Your task to perform on an android device: install app "Etsy: Buy & Sell Unique Items" Image 0: 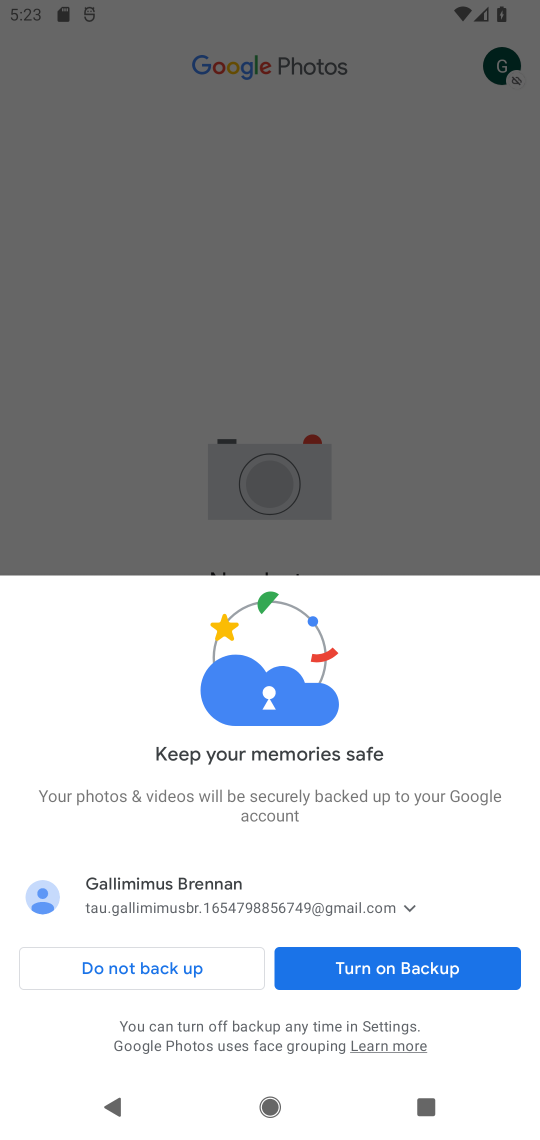
Step 0: press home button
Your task to perform on an android device: install app "Etsy: Buy & Sell Unique Items" Image 1: 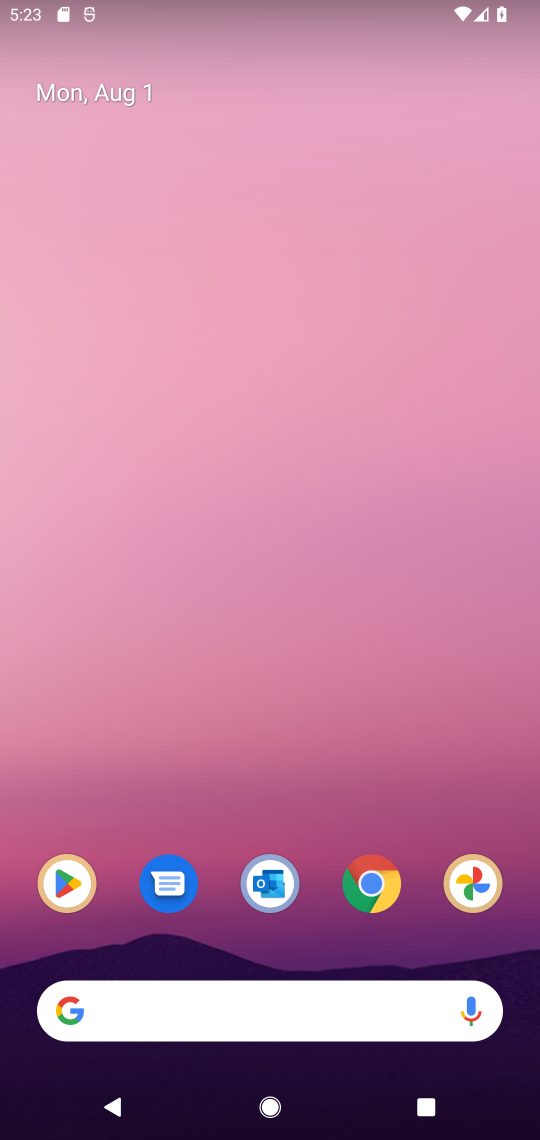
Step 1: drag from (191, 985) to (217, 795)
Your task to perform on an android device: install app "Etsy: Buy & Sell Unique Items" Image 2: 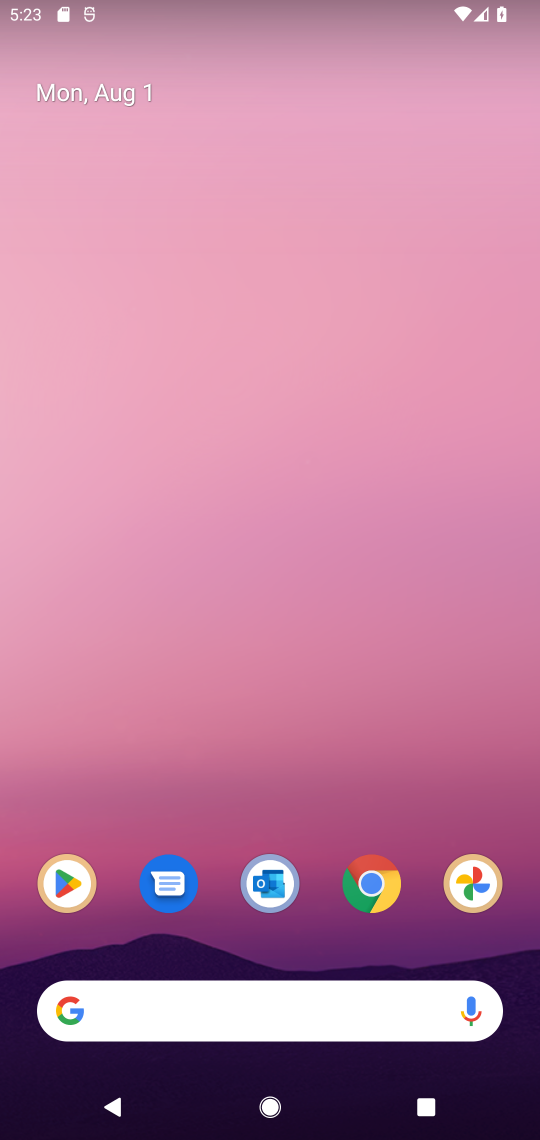
Step 2: drag from (363, 985) to (361, 459)
Your task to perform on an android device: install app "Etsy: Buy & Sell Unique Items" Image 3: 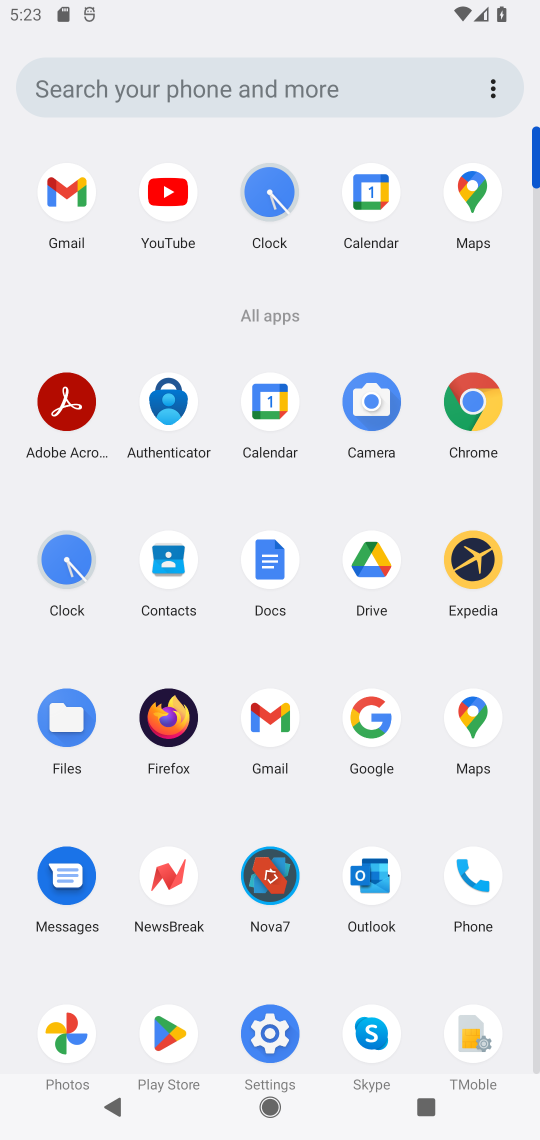
Step 3: click (165, 1028)
Your task to perform on an android device: install app "Etsy: Buy & Sell Unique Items" Image 4: 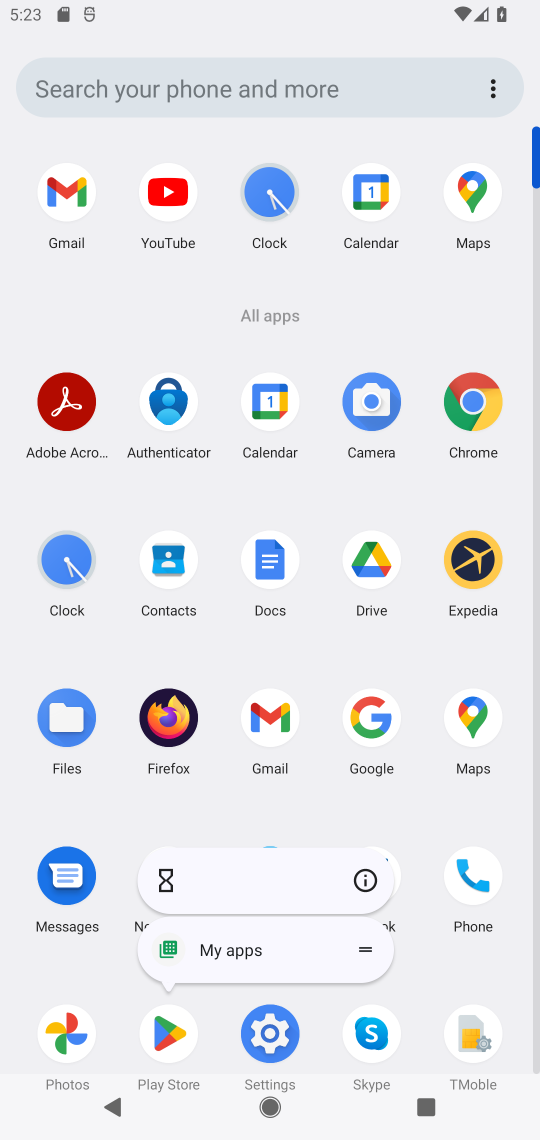
Step 4: click (165, 1028)
Your task to perform on an android device: install app "Etsy: Buy & Sell Unique Items" Image 5: 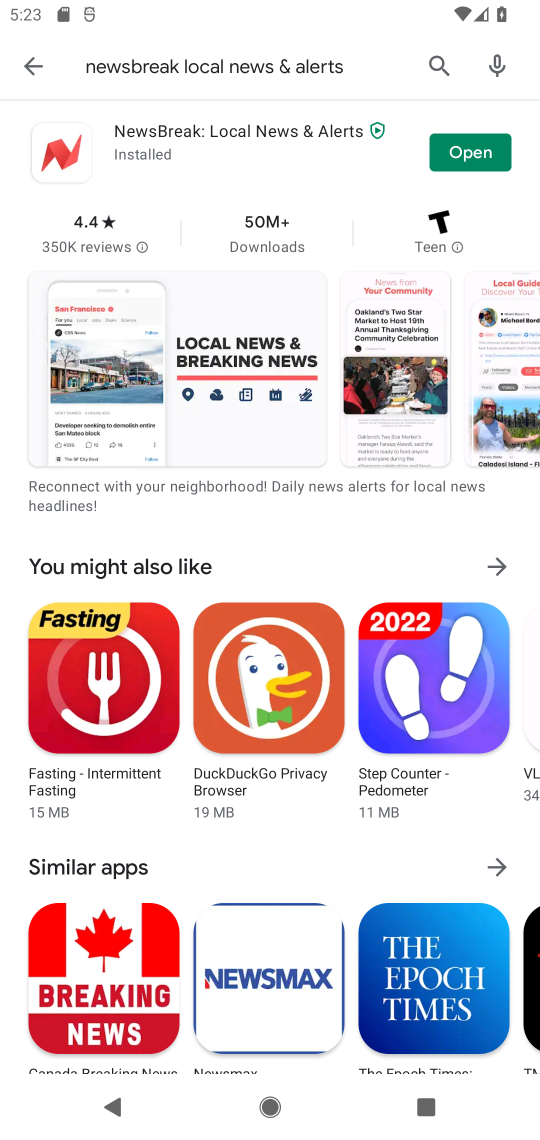
Step 5: click (441, 74)
Your task to perform on an android device: install app "Etsy: Buy & Sell Unique Items" Image 6: 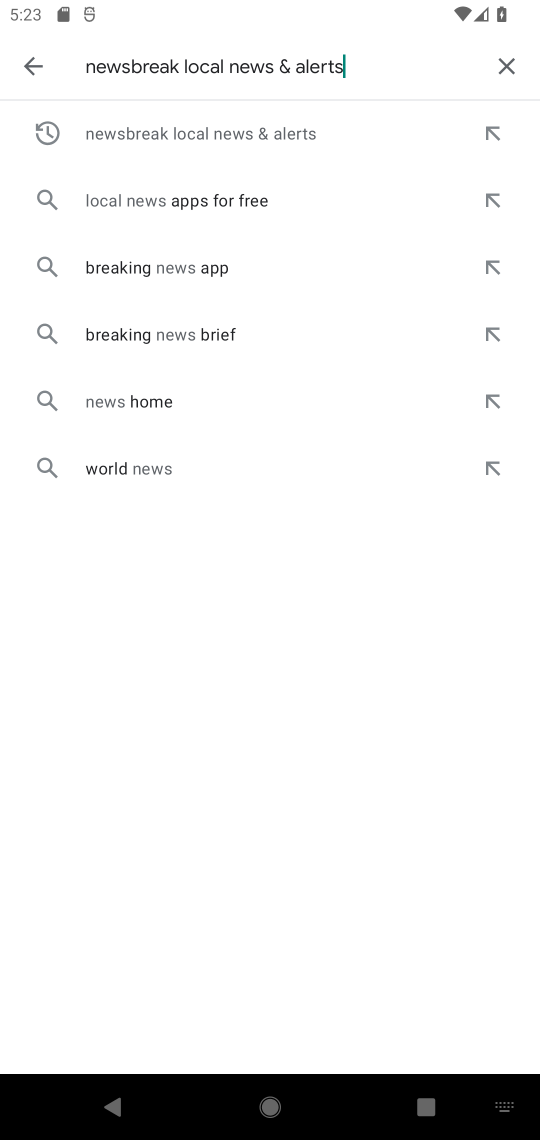
Step 6: type "Etsy: Buy & Sell Unique Items"
Your task to perform on an android device: install app "Etsy: Buy & Sell Unique Items" Image 7: 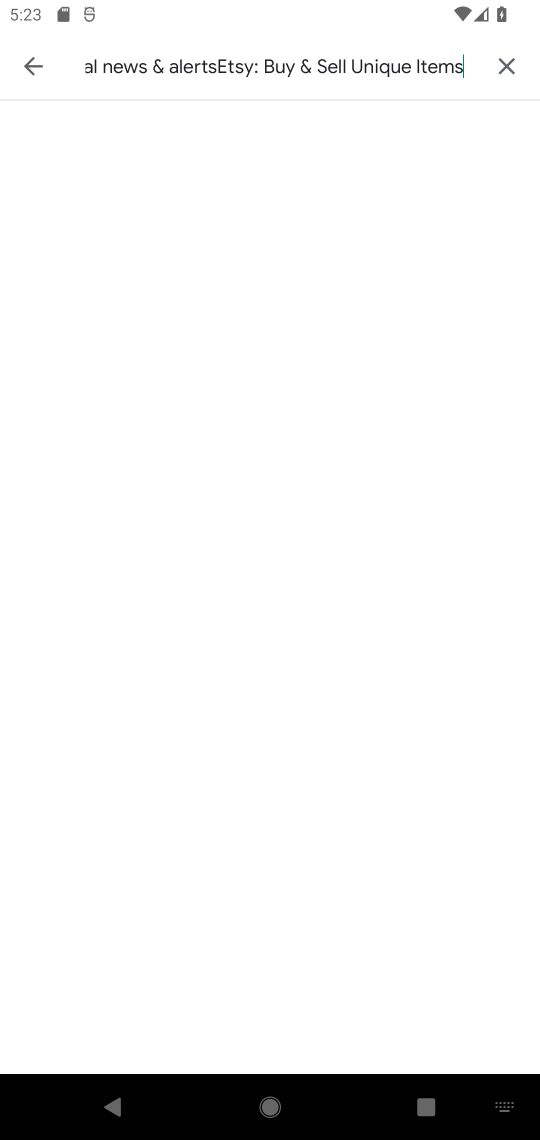
Step 7: click (499, 69)
Your task to perform on an android device: install app "Etsy: Buy & Sell Unique Items" Image 8: 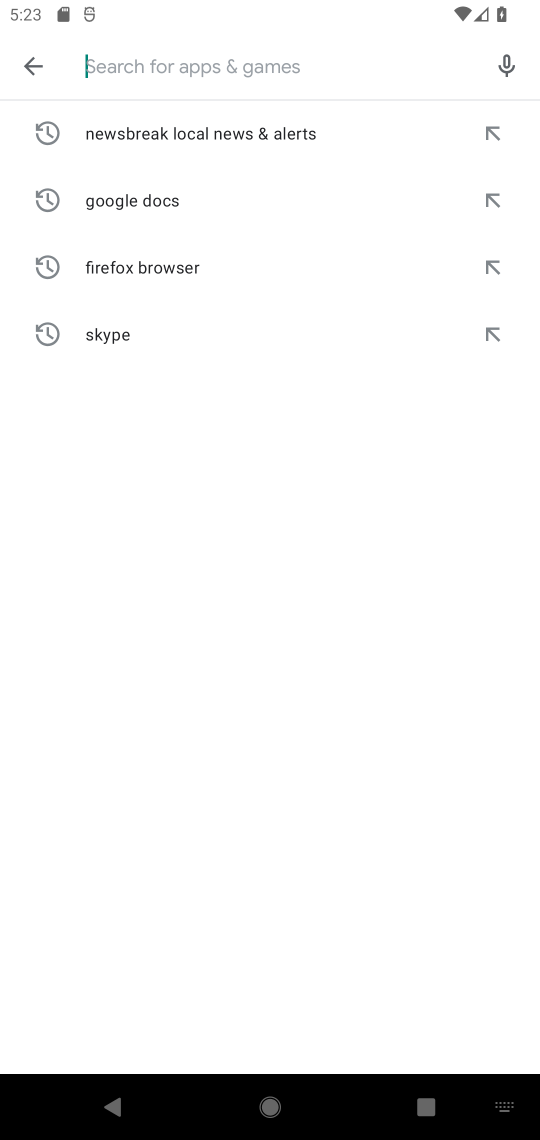
Step 8: type "Etsy: Buy & Sell Unique Items"
Your task to perform on an android device: install app "Etsy: Buy & Sell Unique Items" Image 9: 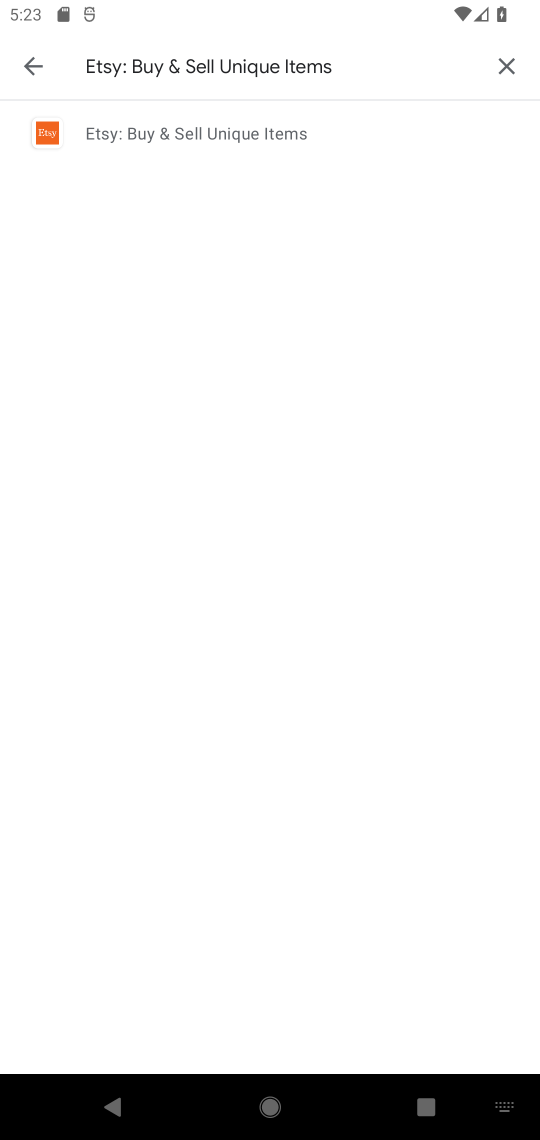
Step 9: click (164, 142)
Your task to perform on an android device: install app "Etsy: Buy & Sell Unique Items" Image 10: 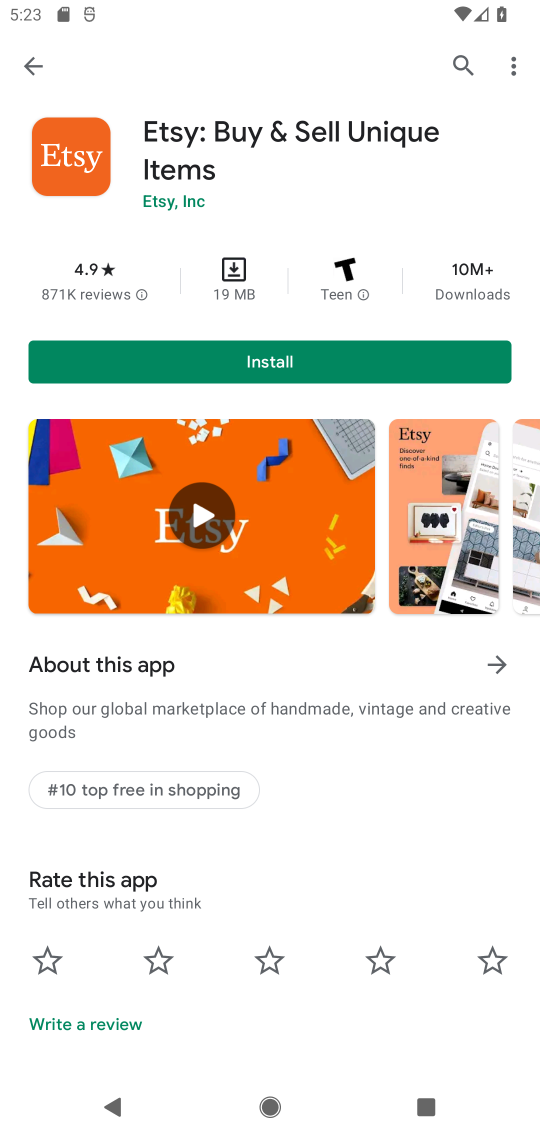
Step 10: click (212, 362)
Your task to perform on an android device: install app "Etsy: Buy & Sell Unique Items" Image 11: 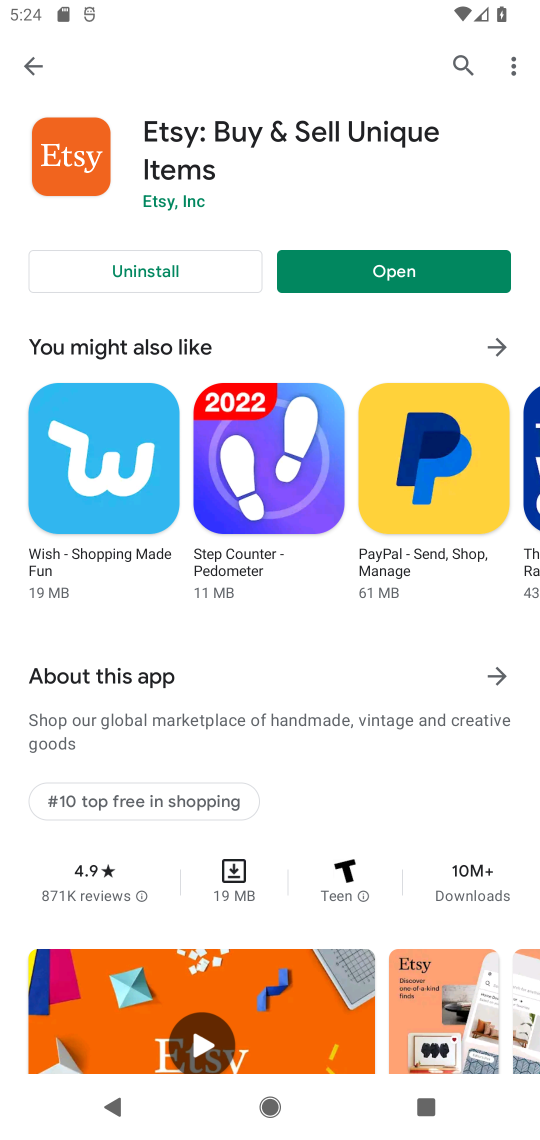
Step 11: click (375, 273)
Your task to perform on an android device: install app "Etsy: Buy & Sell Unique Items" Image 12: 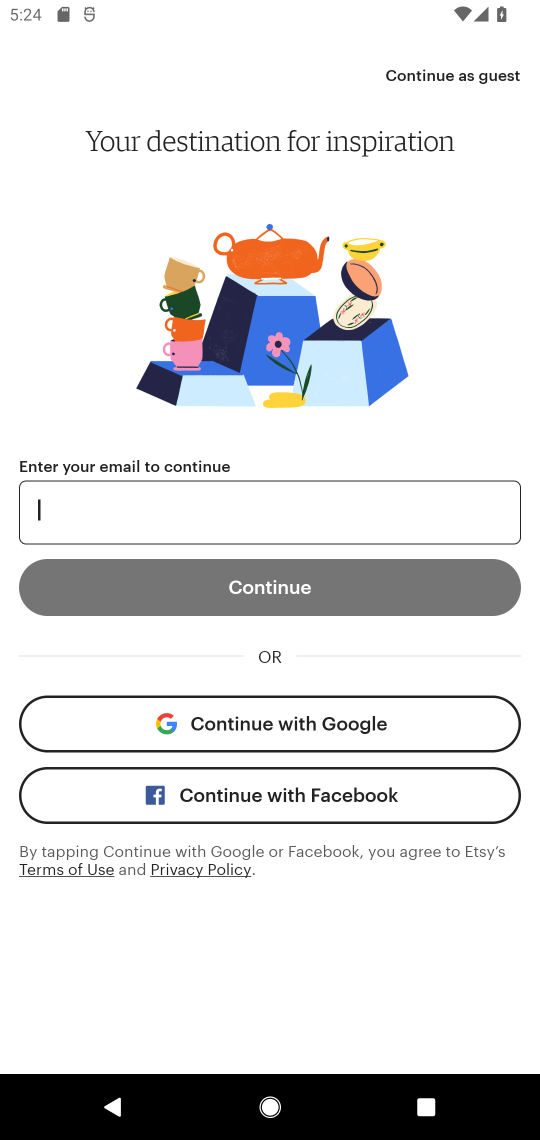
Step 12: task complete